Your task to perform on an android device: Open calendar and show me the fourth week of next month Image 0: 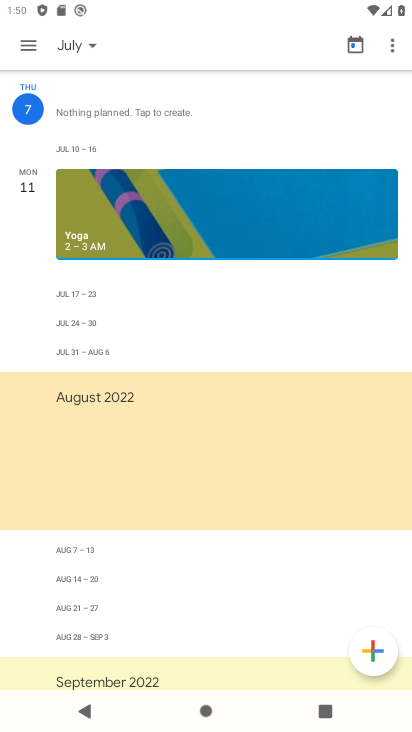
Step 0: press home button
Your task to perform on an android device: Open calendar and show me the fourth week of next month Image 1: 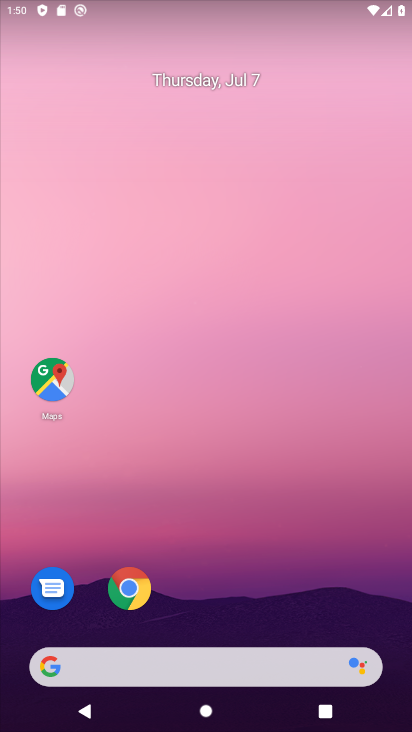
Step 1: drag from (393, 660) to (317, 58)
Your task to perform on an android device: Open calendar and show me the fourth week of next month Image 2: 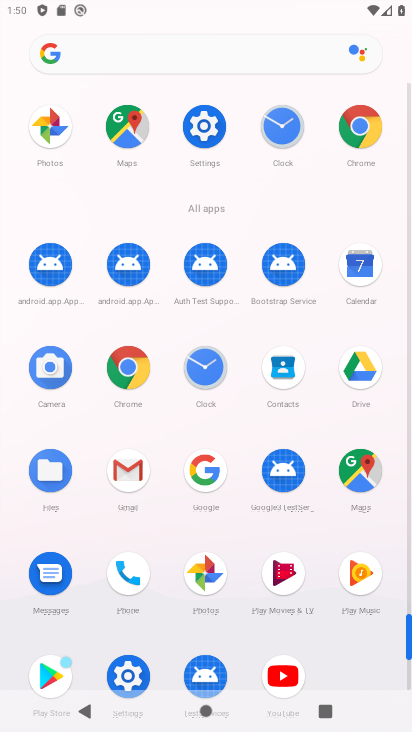
Step 2: click (359, 269)
Your task to perform on an android device: Open calendar and show me the fourth week of next month Image 3: 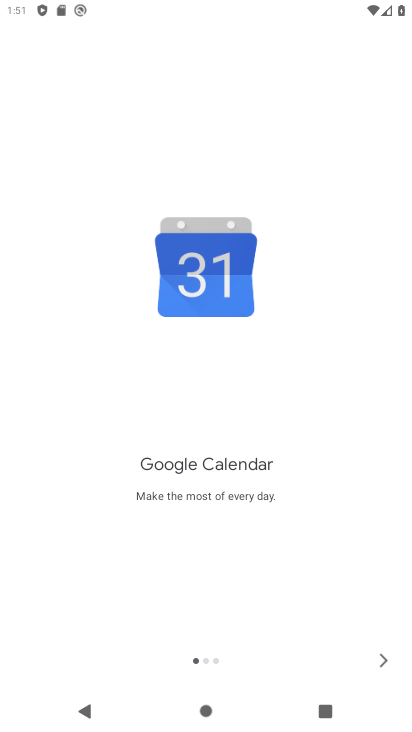
Step 3: click (387, 662)
Your task to perform on an android device: Open calendar and show me the fourth week of next month Image 4: 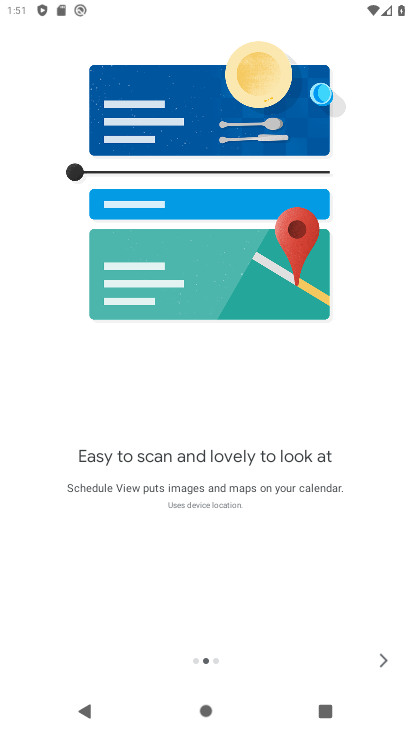
Step 4: click (380, 656)
Your task to perform on an android device: Open calendar and show me the fourth week of next month Image 5: 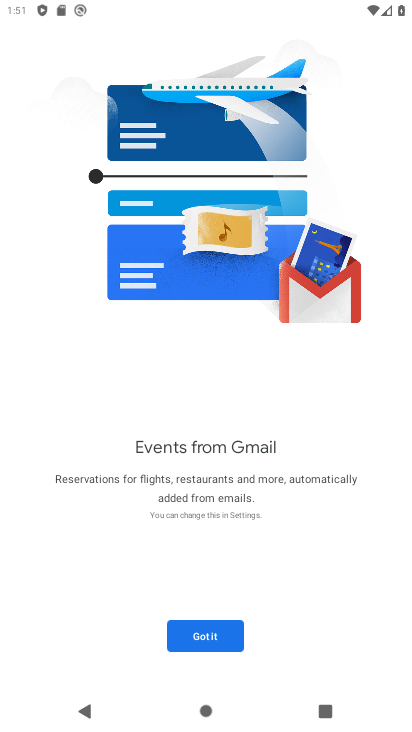
Step 5: click (203, 636)
Your task to perform on an android device: Open calendar and show me the fourth week of next month Image 6: 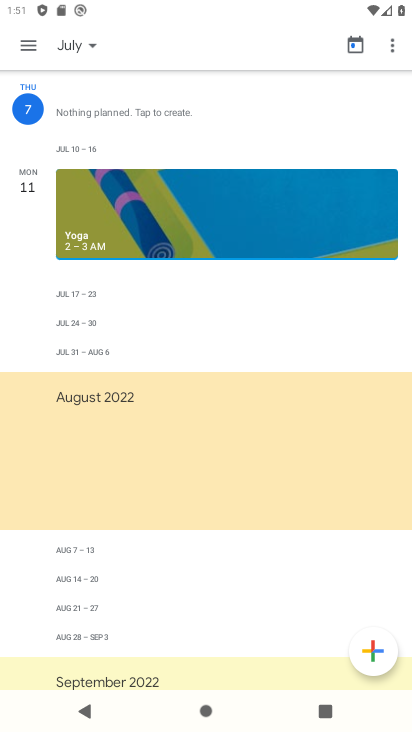
Step 6: click (27, 47)
Your task to perform on an android device: Open calendar and show me the fourth week of next month Image 7: 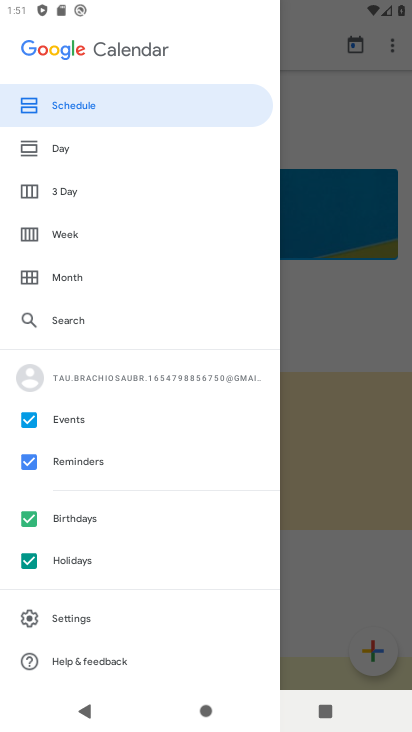
Step 7: click (67, 232)
Your task to perform on an android device: Open calendar and show me the fourth week of next month Image 8: 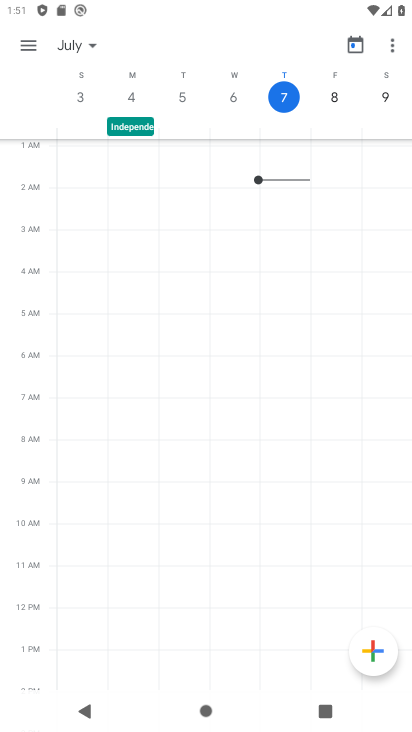
Step 8: click (92, 45)
Your task to perform on an android device: Open calendar and show me the fourth week of next month Image 9: 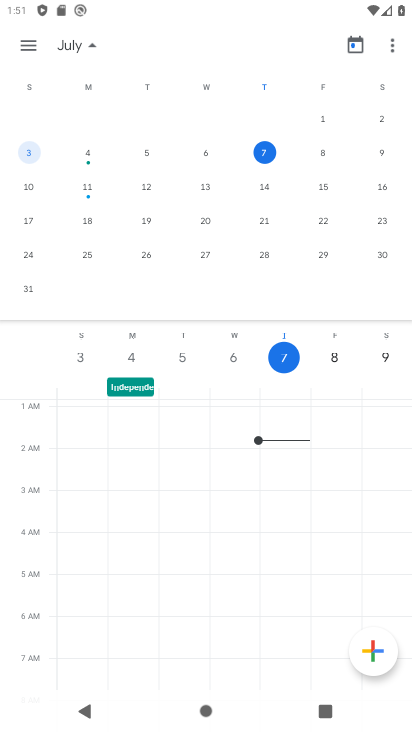
Step 9: drag from (391, 199) to (0, 159)
Your task to perform on an android device: Open calendar and show me the fourth week of next month Image 10: 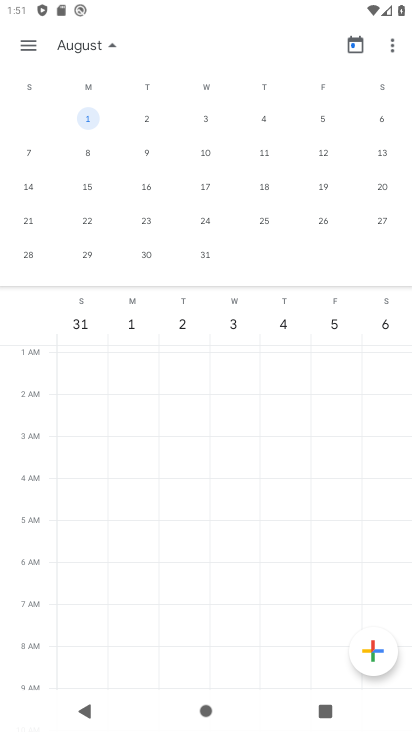
Step 10: click (31, 220)
Your task to perform on an android device: Open calendar and show me the fourth week of next month Image 11: 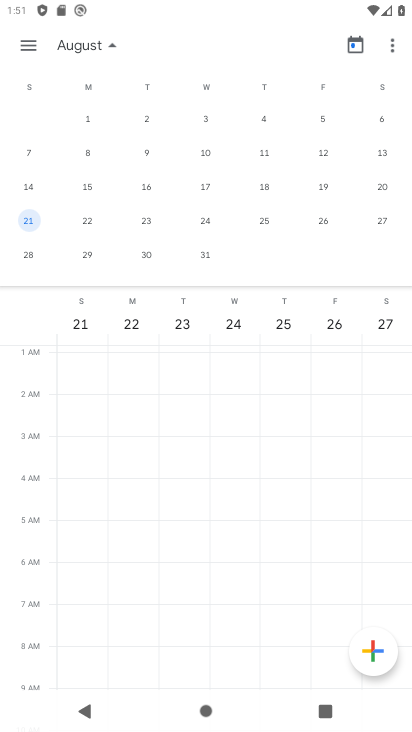
Step 11: task complete